Your task to perform on an android device: Search for "dell xps" on ebay.com, select the first entry, add it to the cart, then select checkout. Image 0: 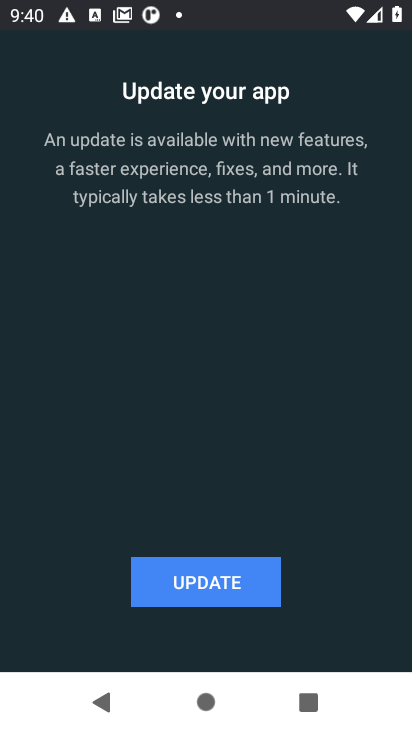
Step 0: press home button
Your task to perform on an android device: Search for "dell xps" on ebay.com, select the first entry, add it to the cart, then select checkout. Image 1: 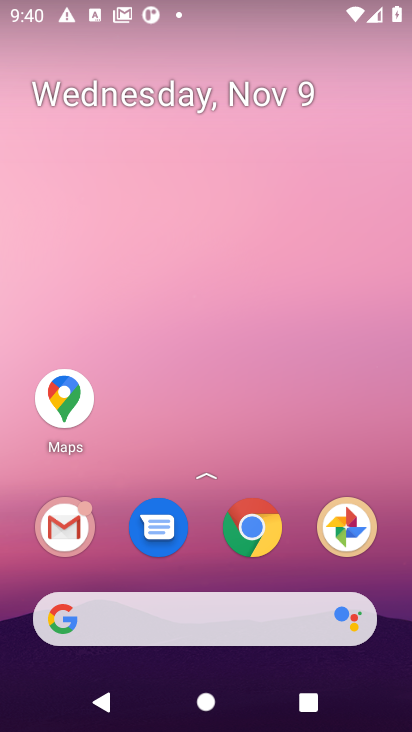
Step 1: click (254, 539)
Your task to perform on an android device: Search for "dell xps" on ebay.com, select the first entry, add it to the cart, then select checkout. Image 2: 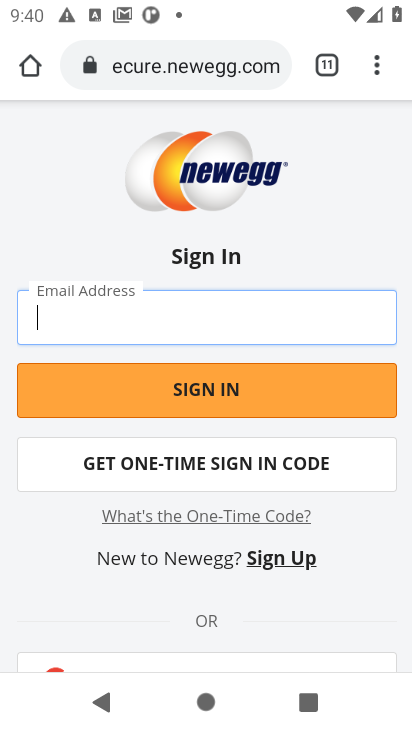
Step 2: click (134, 63)
Your task to perform on an android device: Search for "dell xps" on ebay.com, select the first entry, add it to the cart, then select checkout. Image 3: 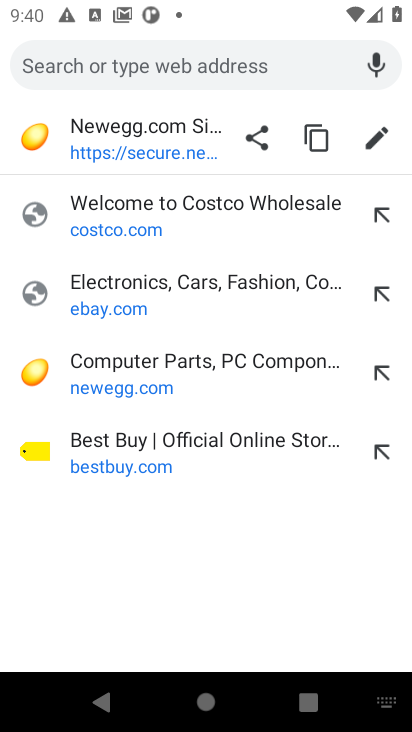
Step 3: click (89, 296)
Your task to perform on an android device: Search for "dell xps" on ebay.com, select the first entry, add it to the cart, then select checkout. Image 4: 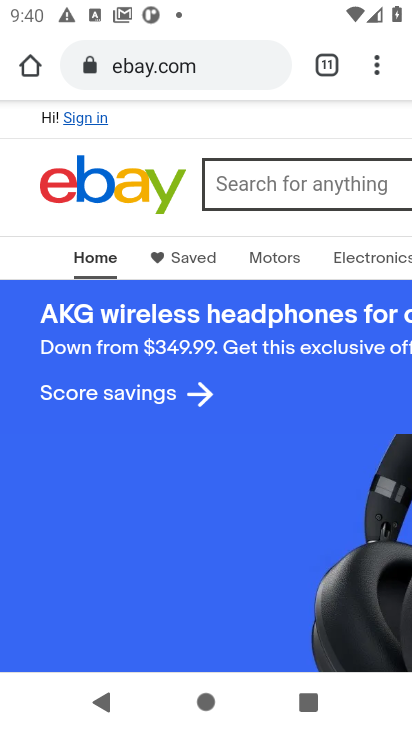
Step 4: click (271, 185)
Your task to perform on an android device: Search for "dell xps" on ebay.com, select the first entry, add it to the cart, then select checkout. Image 5: 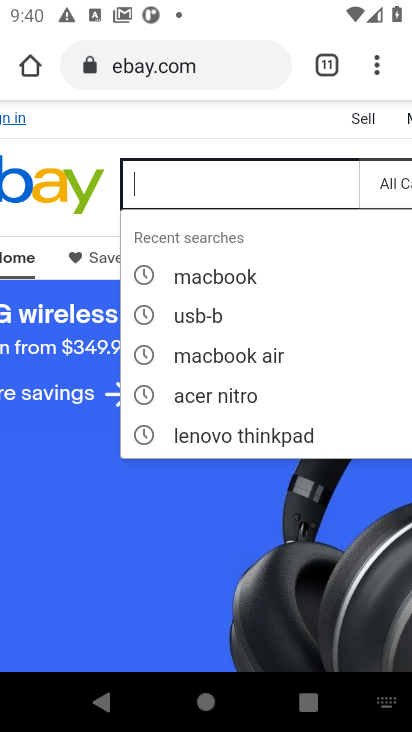
Step 5: type "dell xps"
Your task to perform on an android device: Search for "dell xps" on ebay.com, select the first entry, add it to the cart, then select checkout. Image 6: 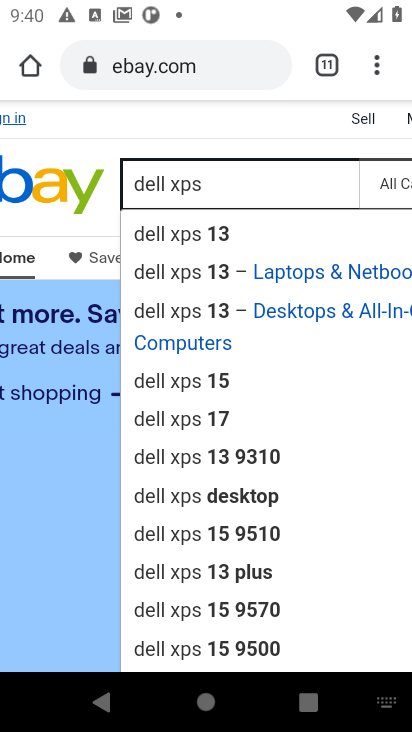
Step 6: drag from (333, 185) to (48, 183)
Your task to perform on an android device: Search for "dell xps" on ebay.com, select the first entry, add it to the cart, then select checkout. Image 7: 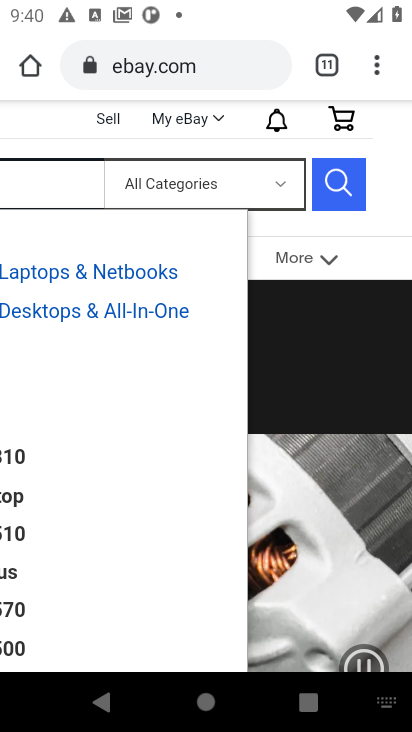
Step 7: click (325, 188)
Your task to perform on an android device: Search for "dell xps" on ebay.com, select the first entry, add it to the cart, then select checkout. Image 8: 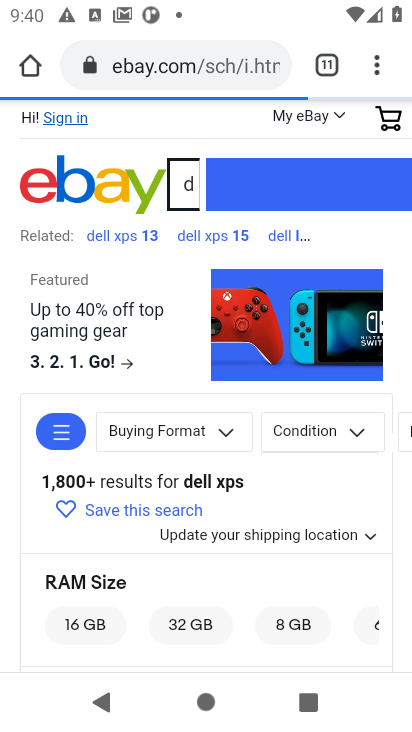
Step 8: drag from (305, 501) to (278, 280)
Your task to perform on an android device: Search for "dell xps" on ebay.com, select the first entry, add it to the cart, then select checkout. Image 9: 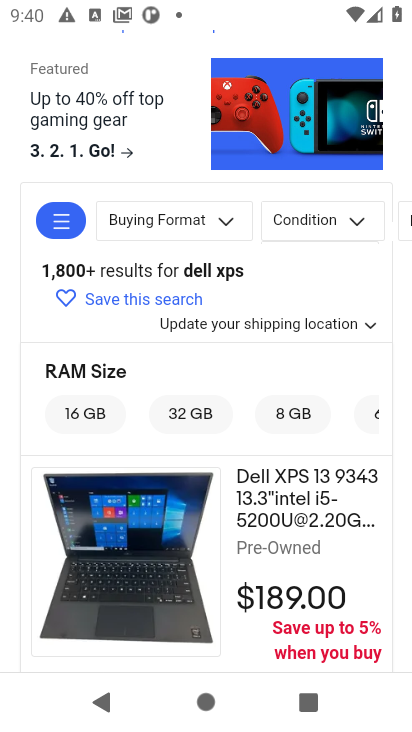
Step 9: drag from (235, 516) to (232, 327)
Your task to perform on an android device: Search for "dell xps" on ebay.com, select the first entry, add it to the cart, then select checkout. Image 10: 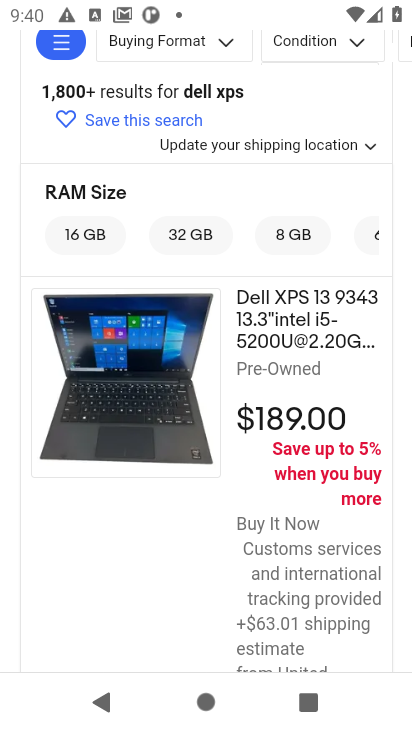
Step 10: click (132, 383)
Your task to perform on an android device: Search for "dell xps" on ebay.com, select the first entry, add it to the cart, then select checkout. Image 11: 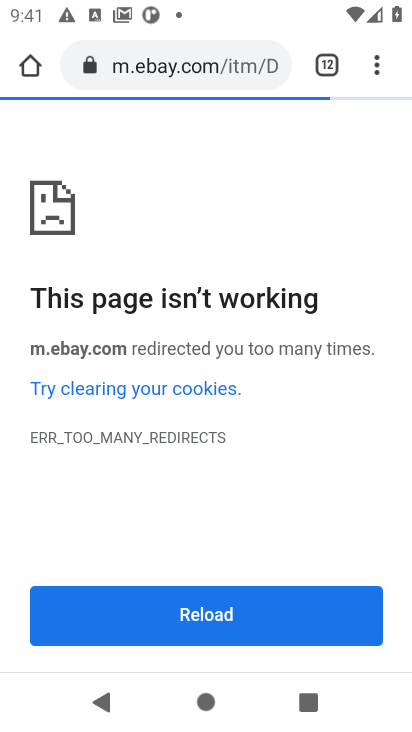
Step 11: task complete